Your task to perform on an android device: change the clock display to digital Image 0: 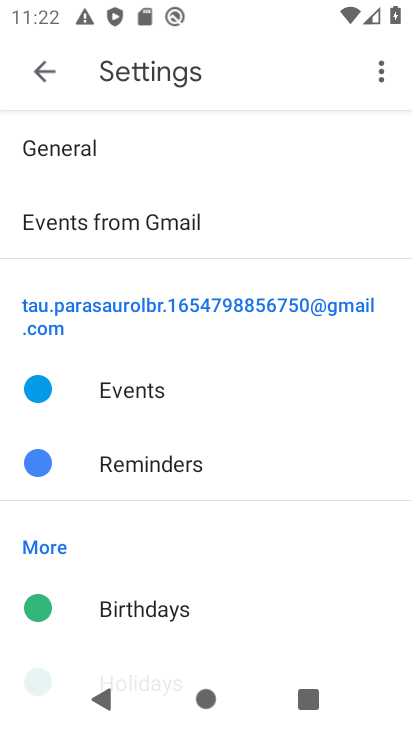
Step 0: press home button
Your task to perform on an android device: change the clock display to digital Image 1: 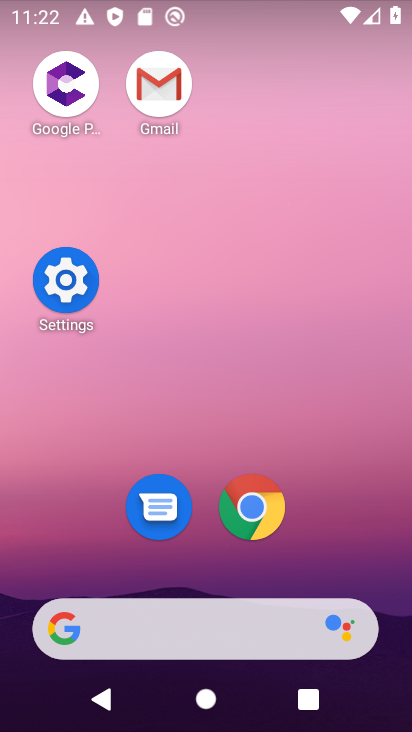
Step 1: drag from (324, 541) to (319, 147)
Your task to perform on an android device: change the clock display to digital Image 2: 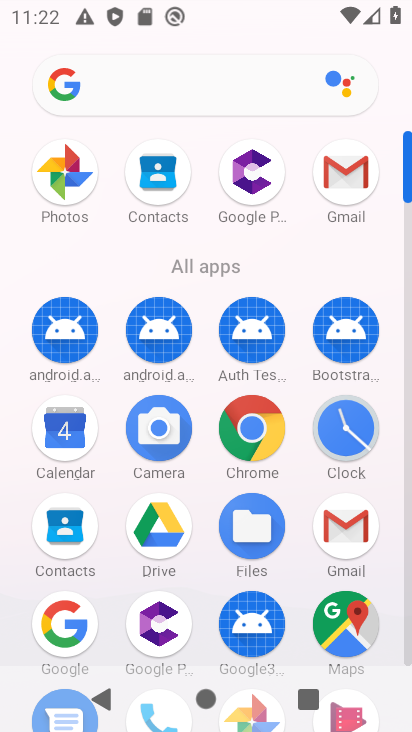
Step 2: drag from (340, 423) to (222, 147)
Your task to perform on an android device: change the clock display to digital Image 3: 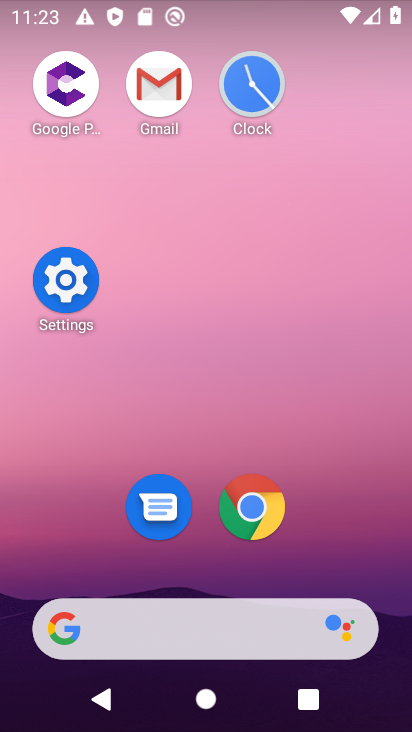
Step 3: click (245, 95)
Your task to perform on an android device: change the clock display to digital Image 4: 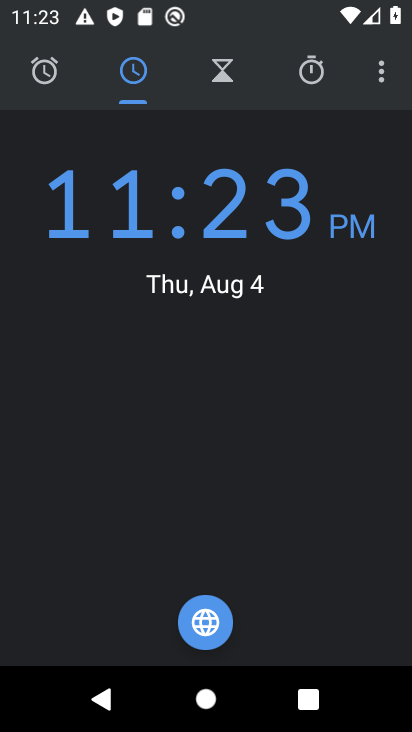
Step 4: click (380, 69)
Your task to perform on an android device: change the clock display to digital Image 5: 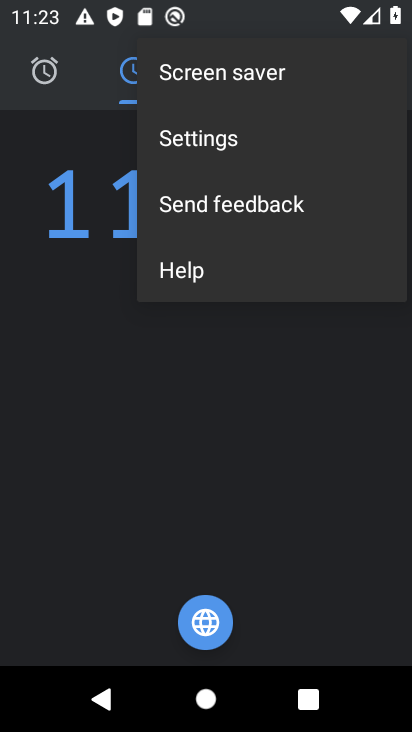
Step 5: click (186, 136)
Your task to perform on an android device: change the clock display to digital Image 6: 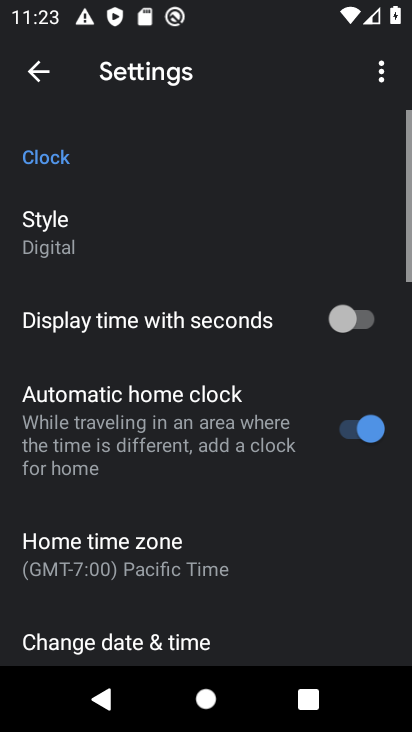
Step 6: click (72, 252)
Your task to perform on an android device: change the clock display to digital Image 7: 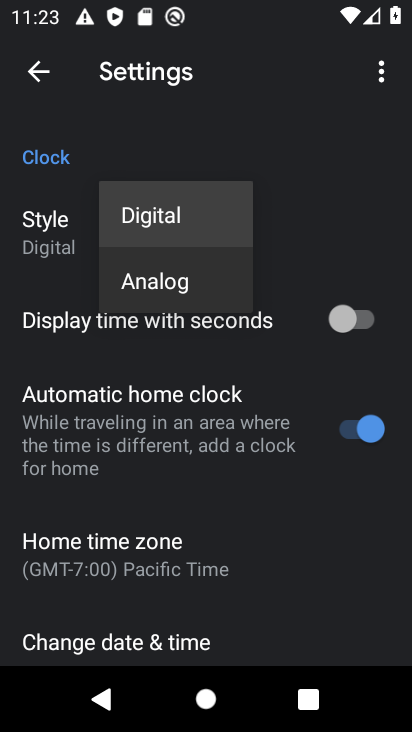
Step 7: task complete